Your task to perform on an android device: turn pop-ups on in chrome Image 0: 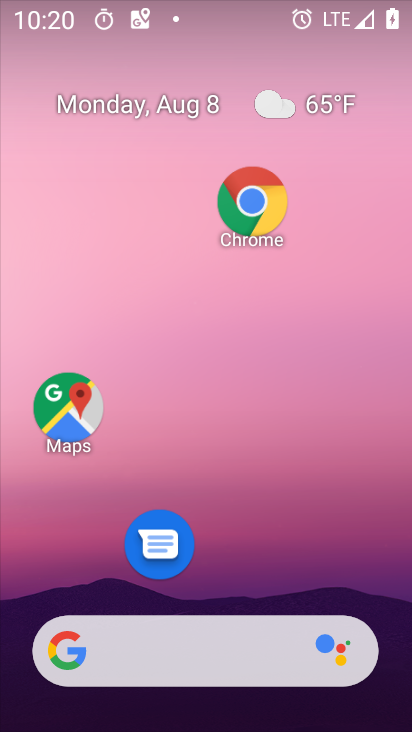
Step 0: drag from (217, 587) to (219, 119)
Your task to perform on an android device: turn pop-ups on in chrome Image 1: 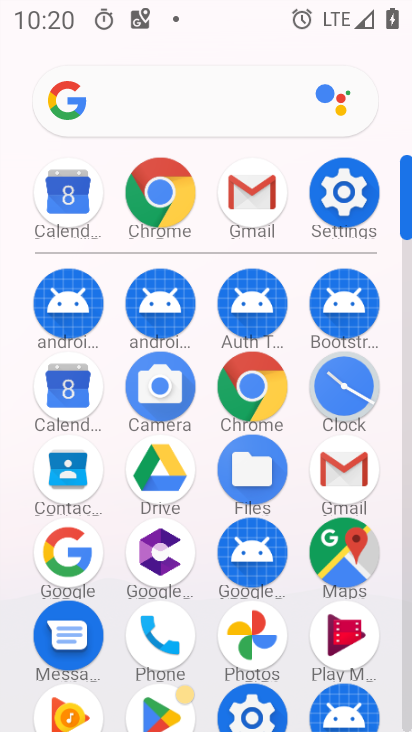
Step 1: click (154, 192)
Your task to perform on an android device: turn pop-ups on in chrome Image 2: 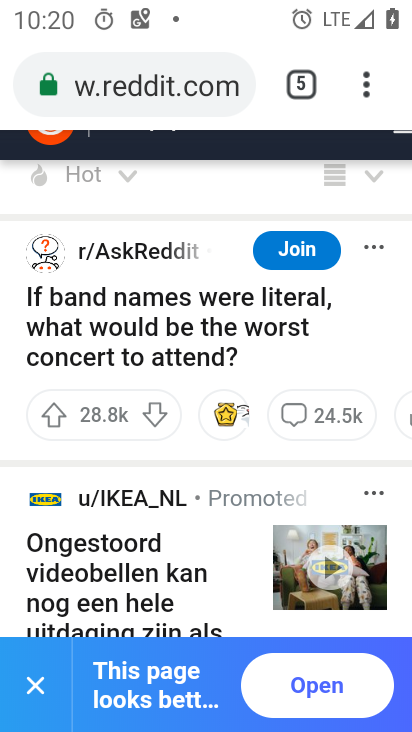
Step 2: click (32, 687)
Your task to perform on an android device: turn pop-ups on in chrome Image 3: 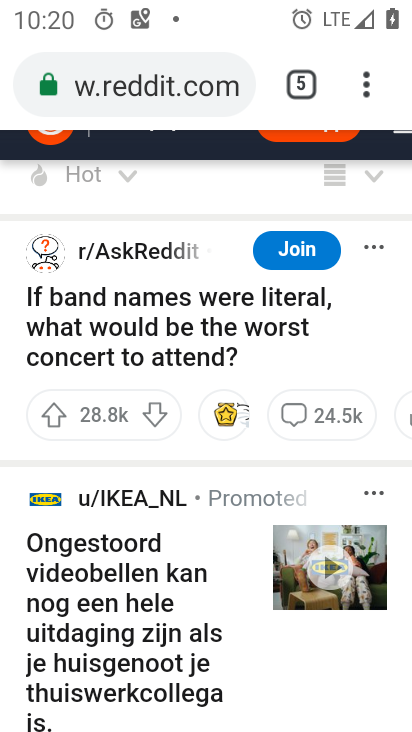
Step 3: click (362, 89)
Your task to perform on an android device: turn pop-ups on in chrome Image 4: 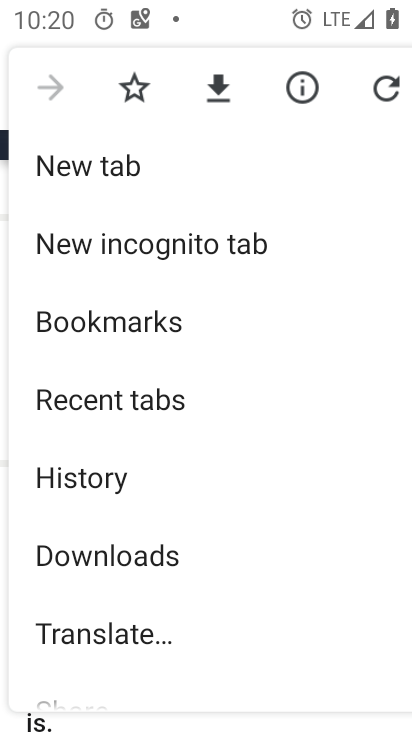
Step 4: drag from (208, 628) to (239, 261)
Your task to perform on an android device: turn pop-ups on in chrome Image 5: 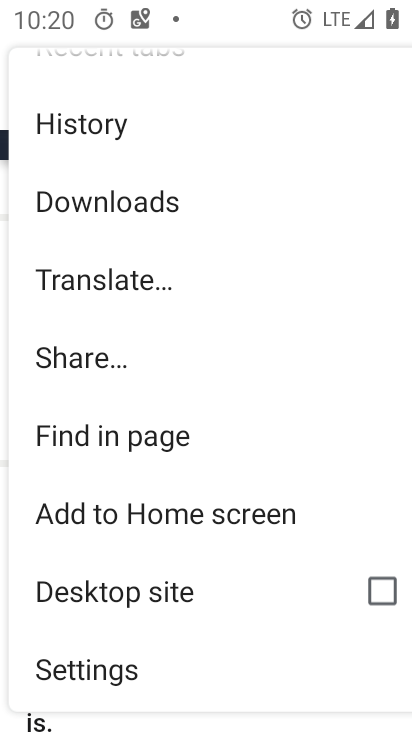
Step 5: click (149, 672)
Your task to perform on an android device: turn pop-ups on in chrome Image 6: 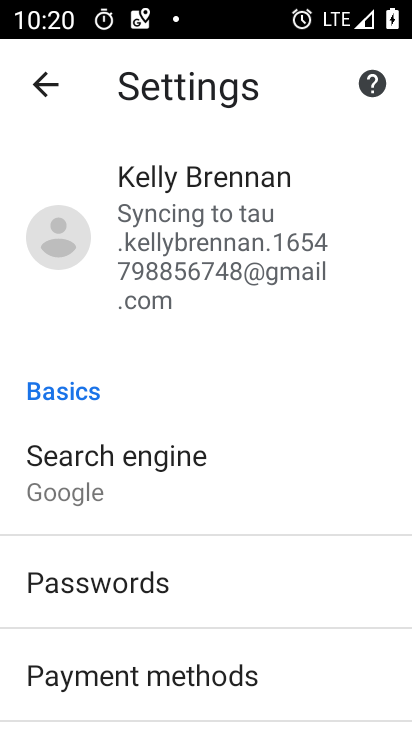
Step 6: drag from (277, 684) to (285, 107)
Your task to perform on an android device: turn pop-ups on in chrome Image 7: 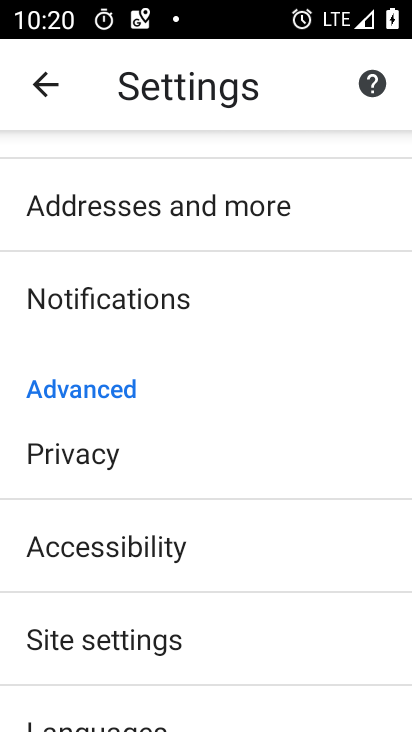
Step 7: click (193, 639)
Your task to perform on an android device: turn pop-ups on in chrome Image 8: 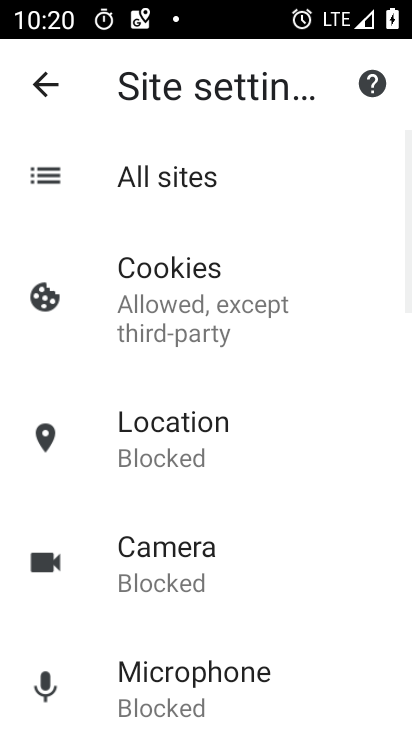
Step 8: drag from (232, 670) to (251, 164)
Your task to perform on an android device: turn pop-ups on in chrome Image 9: 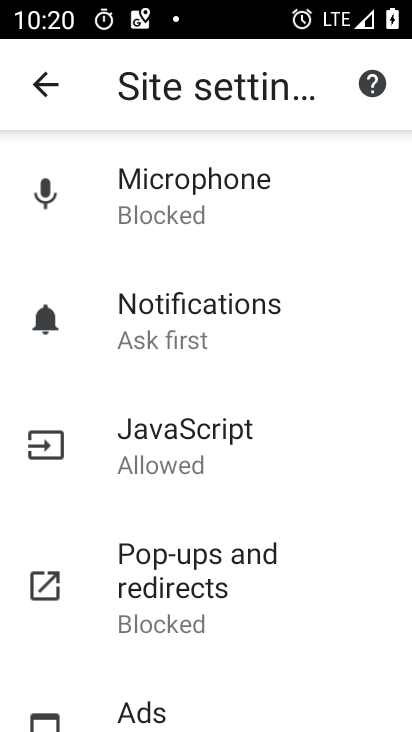
Step 9: click (220, 591)
Your task to perform on an android device: turn pop-ups on in chrome Image 10: 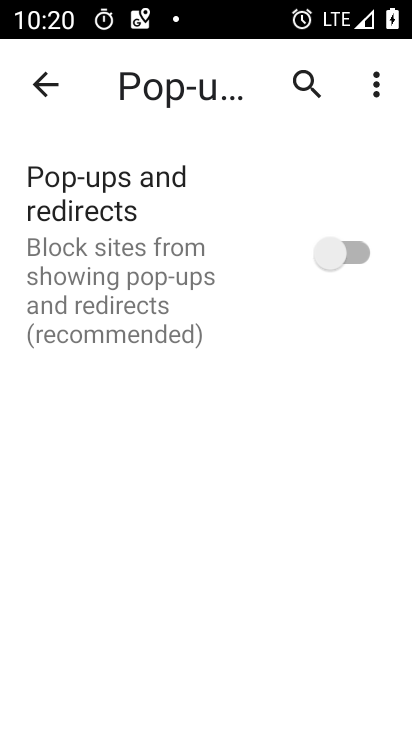
Step 10: click (356, 257)
Your task to perform on an android device: turn pop-ups on in chrome Image 11: 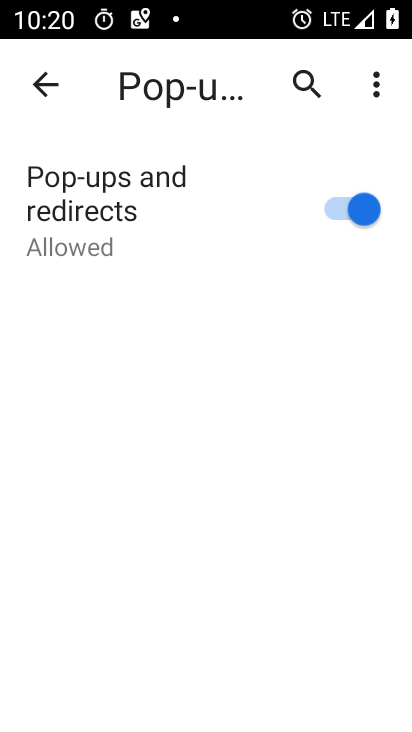
Step 11: task complete